Your task to perform on an android device: turn on priority inbox in the gmail app Image 0: 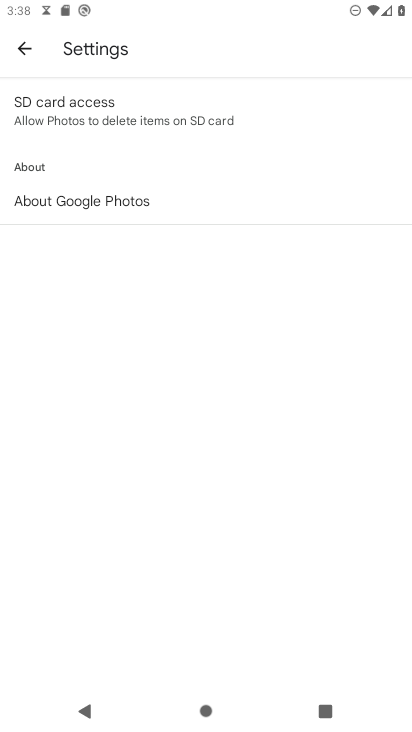
Step 0: click (20, 49)
Your task to perform on an android device: turn on priority inbox in the gmail app Image 1: 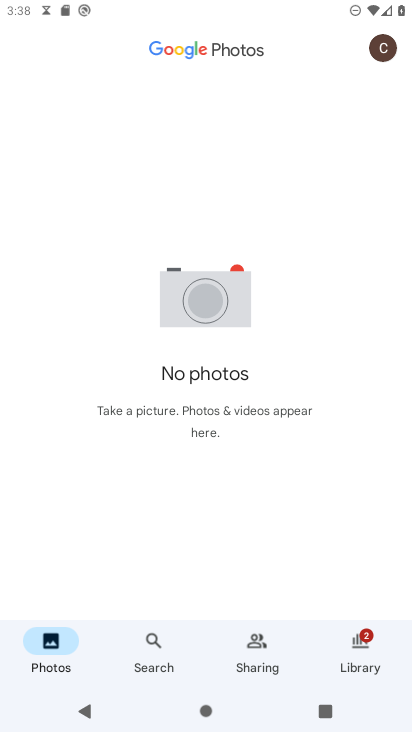
Step 1: press home button
Your task to perform on an android device: turn on priority inbox in the gmail app Image 2: 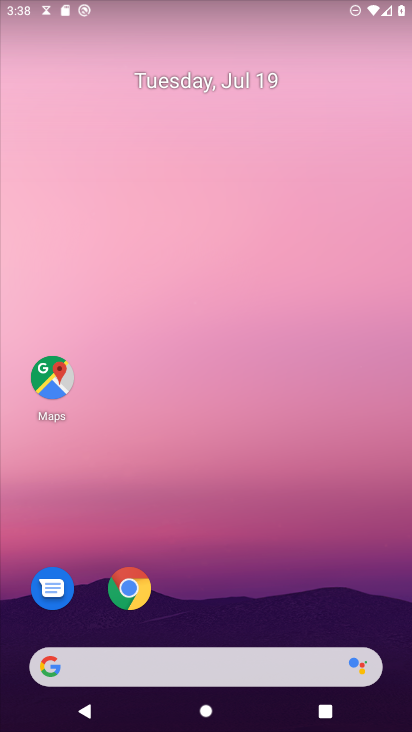
Step 2: drag from (187, 585) to (216, 44)
Your task to perform on an android device: turn on priority inbox in the gmail app Image 3: 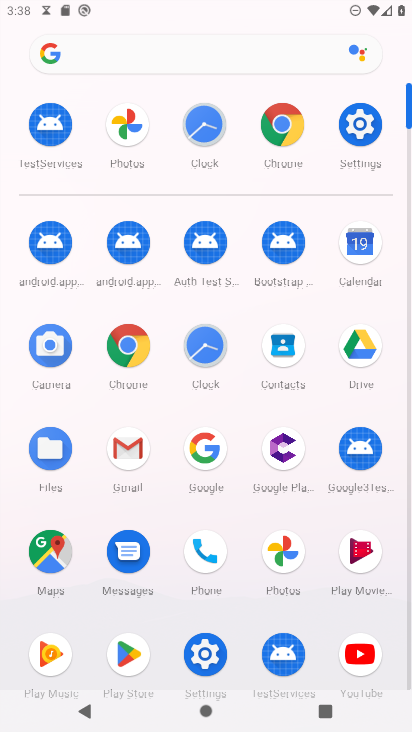
Step 3: click (131, 452)
Your task to perform on an android device: turn on priority inbox in the gmail app Image 4: 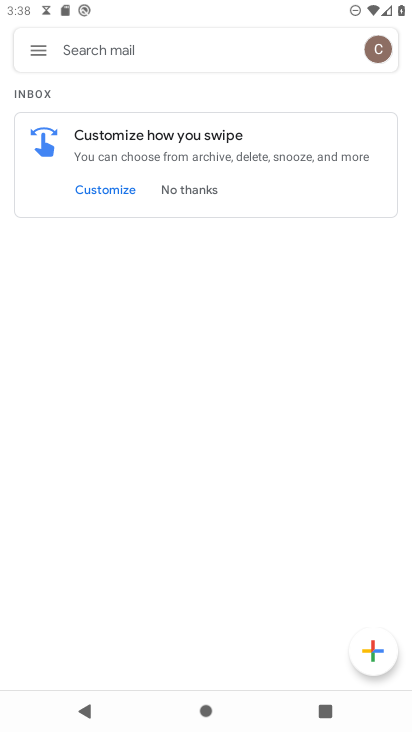
Step 4: click (45, 56)
Your task to perform on an android device: turn on priority inbox in the gmail app Image 5: 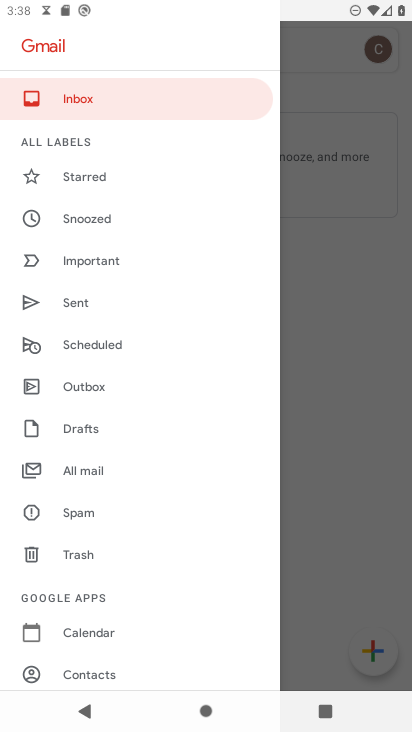
Step 5: drag from (93, 612) to (90, 336)
Your task to perform on an android device: turn on priority inbox in the gmail app Image 6: 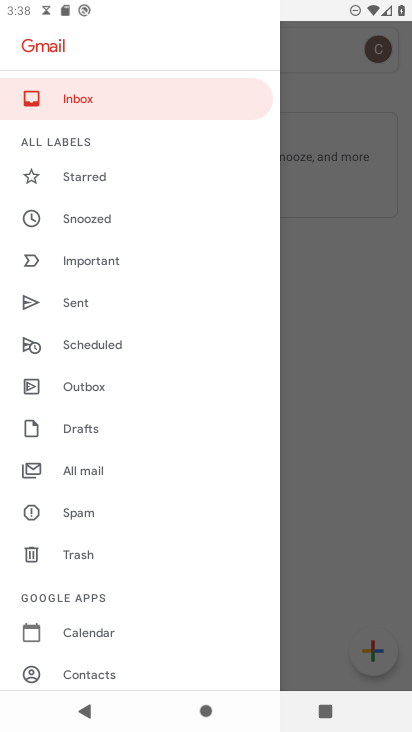
Step 6: drag from (129, 526) to (128, 117)
Your task to perform on an android device: turn on priority inbox in the gmail app Image 7: 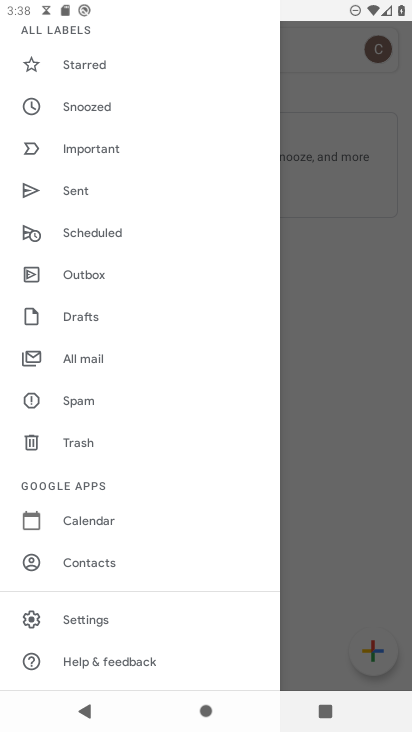
Step 7: click (78, 617)
Your task to perform on an android device: turn on priority inbox in the gmail app Image 8: 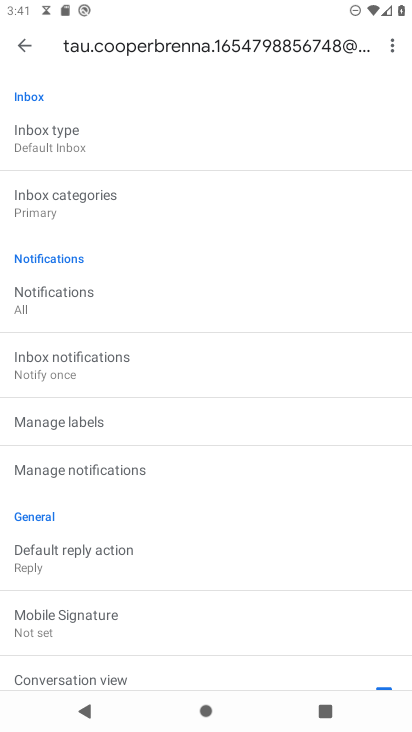
Step 8: drag from (105, 235) to (85, 483)
Your task to perform on an android device: turn on priority inbox in the gmail app Image 9: 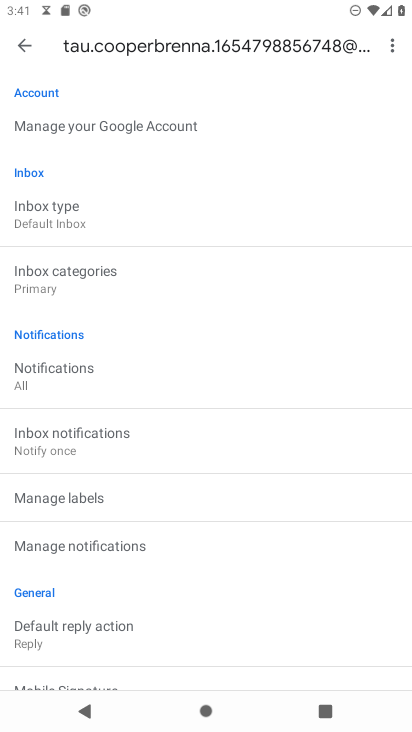
Step 9: click (57, 219)
Your task to perform on an android device: turn on priority inbox in the gmail app Image 10: 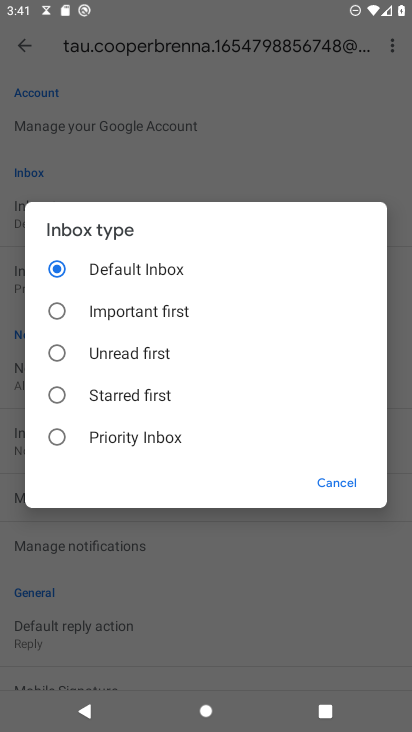
Step 10: click (53, 428)
Your task to perform on an android device: turn on priority inbox in the gmail app Image 11: 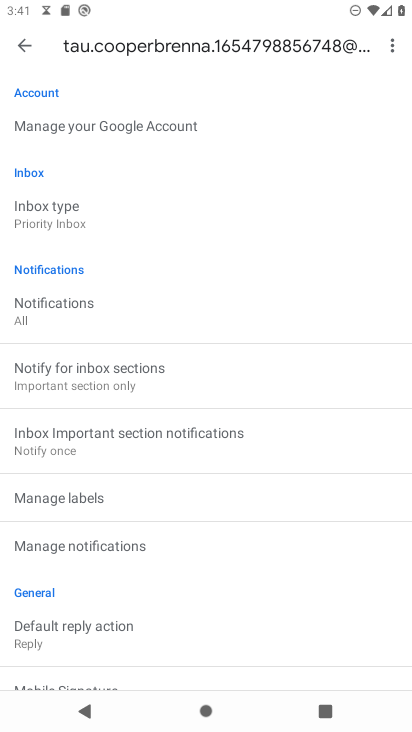
Step 11: task complete